Your task to perform on an android device: open app "DuckDuckGo Privacy Browser" (install if not already installed) Image 0: 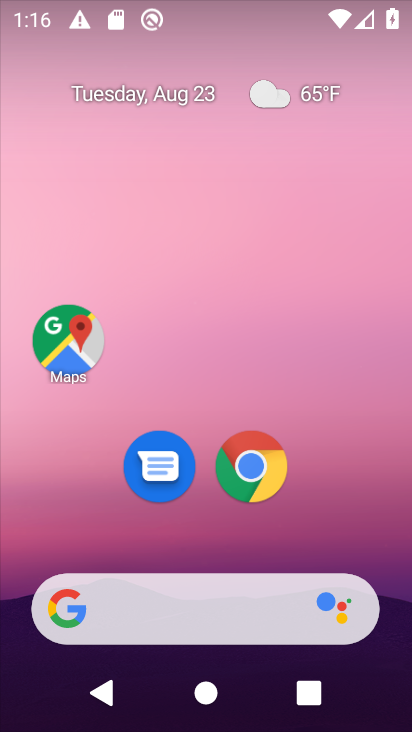
Step 0: drag from (206, 596) to (213, 30)
Your task to perform on an android device: open app "DuckDuckGo Privacy Browser" (install if not already installed) Image 1: 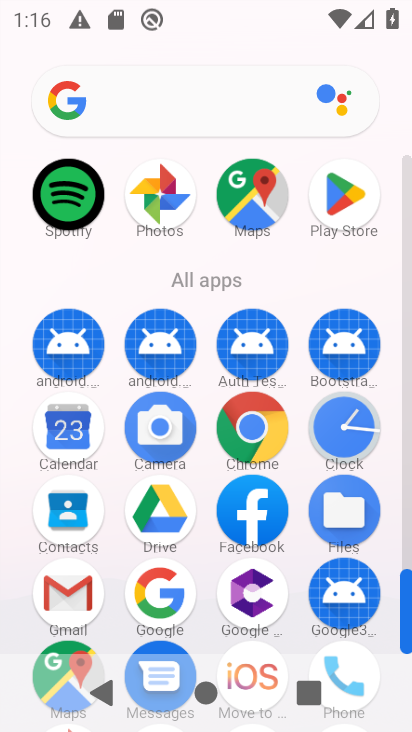
Step 1: click (353, 177)
Your task to perform on an android device: open app "DuckDuckGo Privacy Browser" (install if not already installed) Image 2: 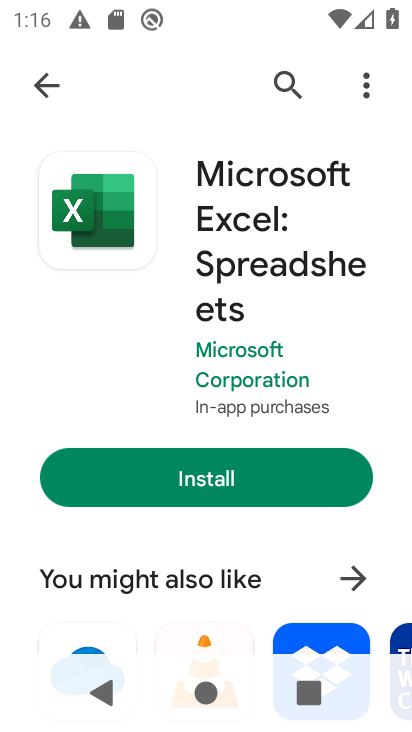
Step 2: click (45, 67)
Your task to perform on an android device: open app "DuckDuckGo Privacy Browser" (install if not already installed) Image 3: 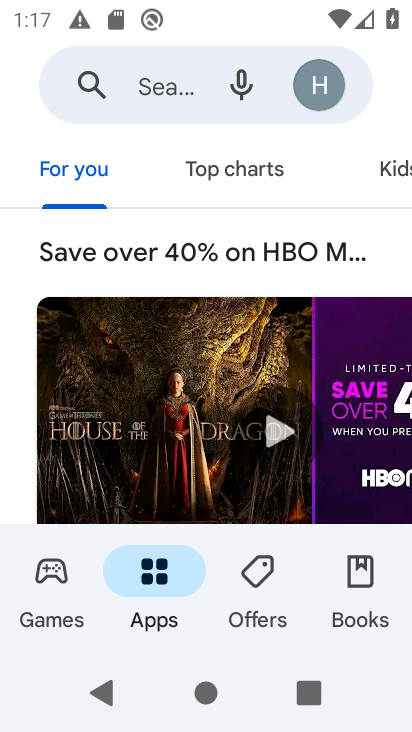
Step 3: click (155, 75)
Your task to perform on an android device: open app "DuckDuckGo Privacy Browser" (install if not already installed) Image 4: 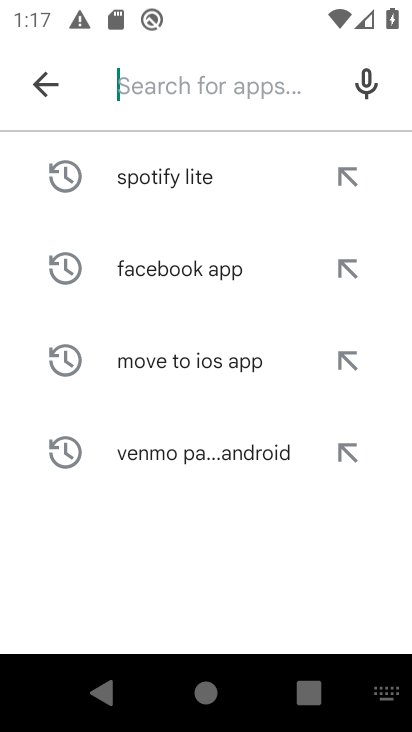
Step 4: type "DuckDuckGo Privacy Browser "
Your task to perform on an android device: open app "DuckDuckGo Privacy Browser" (install if not already installed) Image 5: 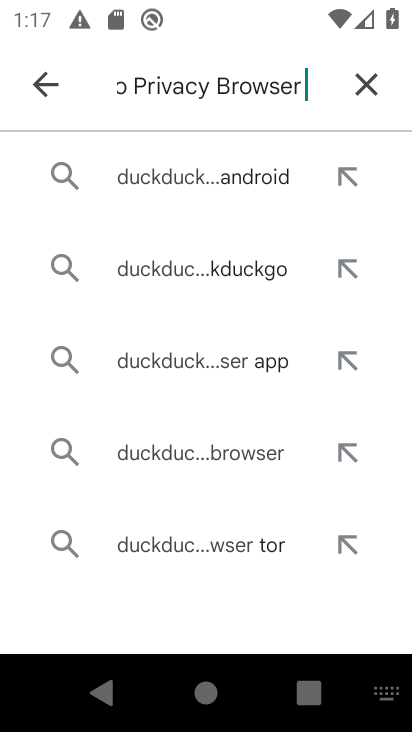
Step 5: click (138, 162)
Your task to perform on an android device: open app "DuckDuckGo Privacy Browser" (install if not already installed) Image 6: 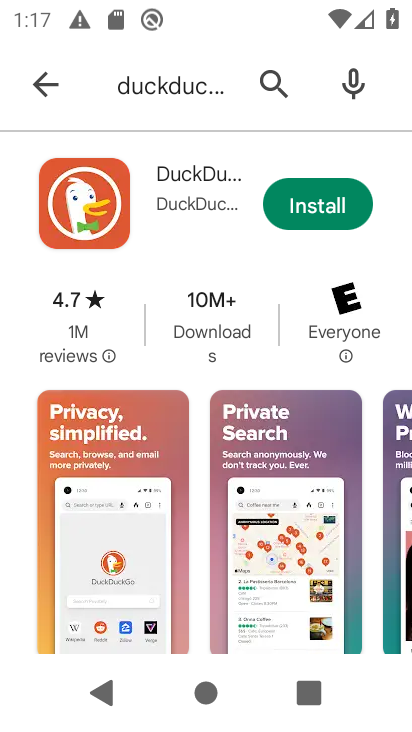
Step 6: click (311, 195)
Your task to perform on an android device: open app "DuckDuckGo Privacy Browser" (install if not already installed) Image 7: 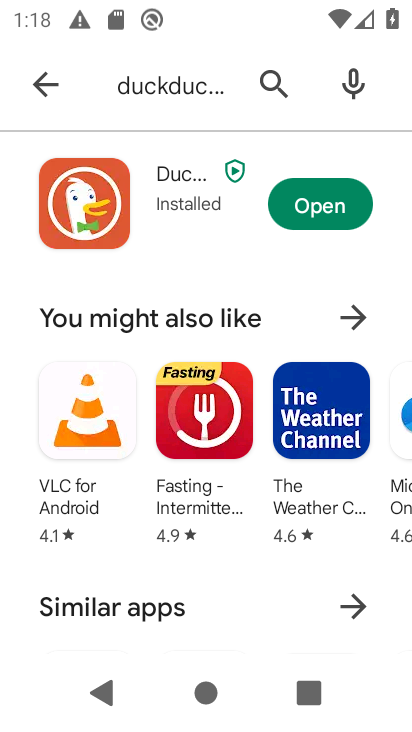
Step 7: click (300, 214)
Your task to perform on an android device: open app "DuckDuckGo Privacy Browser" (install if not already installed) Image 8: 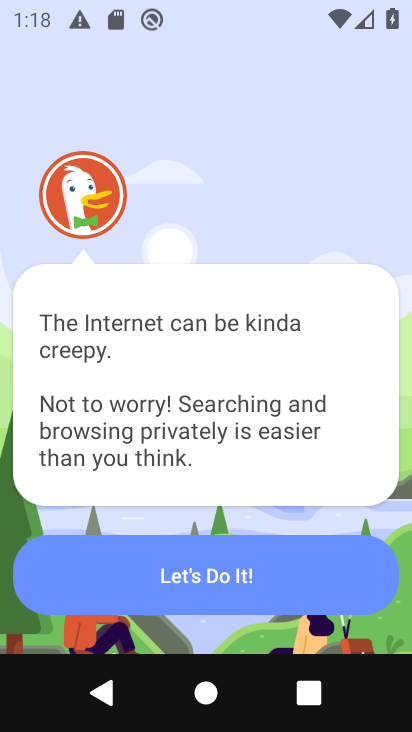
Step 8: task complete